Your task to perform on an android device: turn notification dots on Image 0: 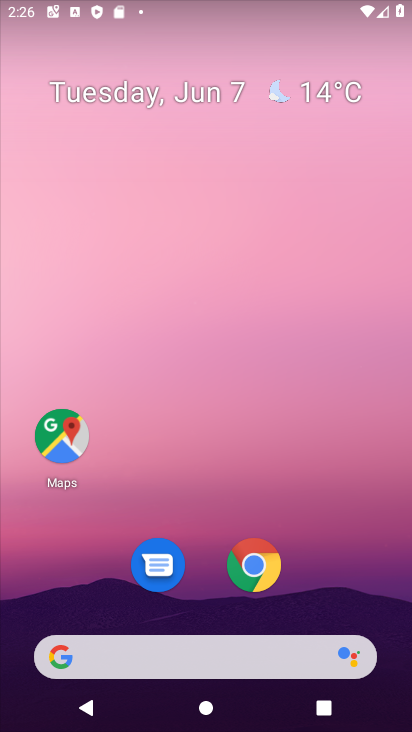
Step 0: drag from (319, 660) to (348, 0)
Your task to perform on an android device: turn notification dots on Image 1: 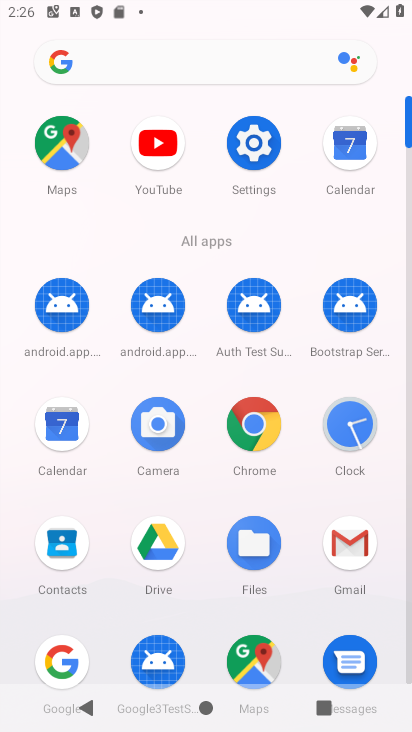
Step 1: click (256, 123)
Your task to perform on an android device: turn notification dots on Image 2: 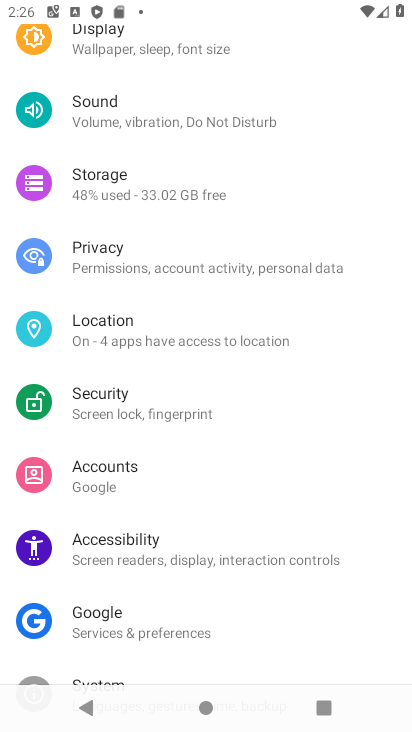
Step 2: drag from (250, 209) to (282, 684)
Your task to perform on an android device: turn notification dots on Image 3: 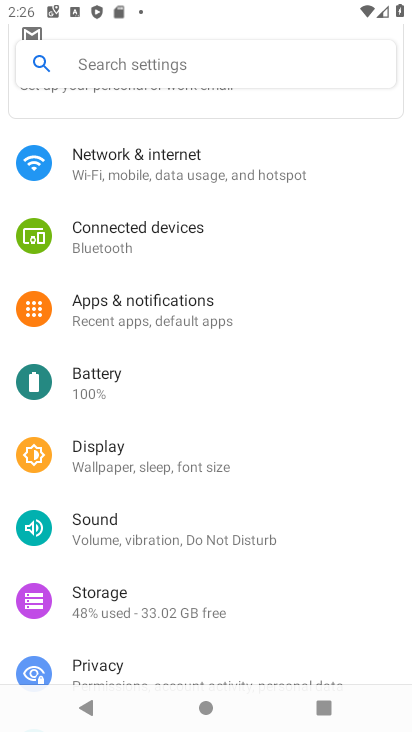
Step 3: click (196, 316)
Your task to perform on an android device: turn notification dots on Image 4: 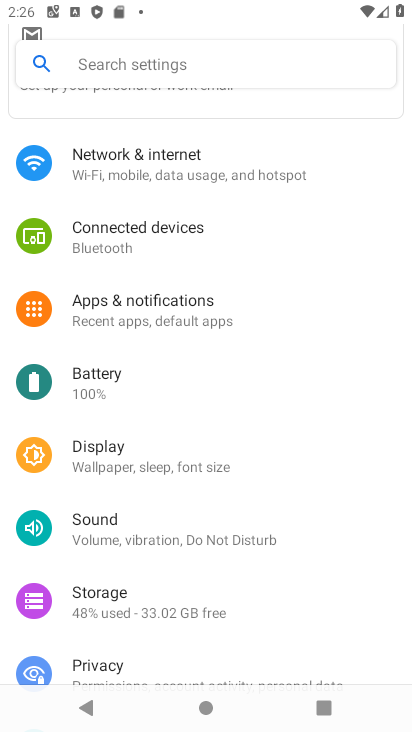
Step 4: click (181, 318)
Your task to perform on an android device: turn notification dots on Image 5: 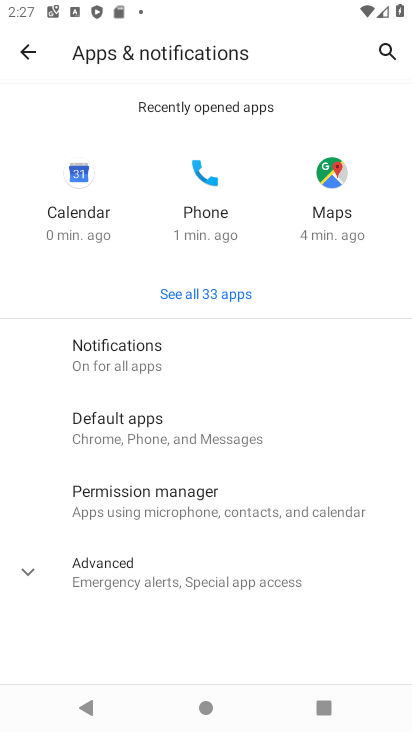
Step 5: click (179, 368)
Your task to perform on an android device: turn notification dots on Image 6: 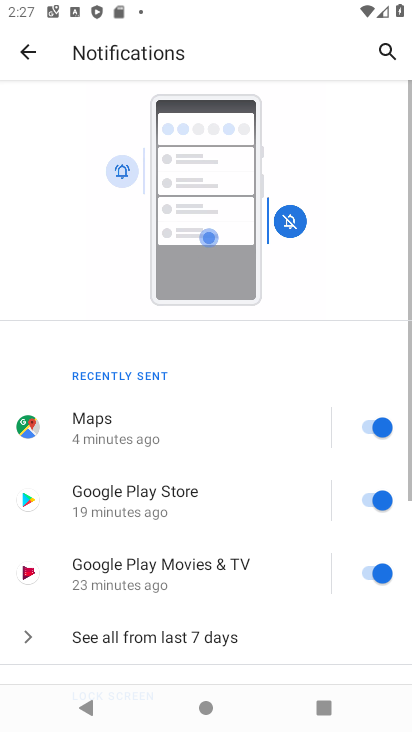
Step 6: drag from (225, 647) to (273, 66)
Your task to perform on an android device: turn notification dots on Image 7: 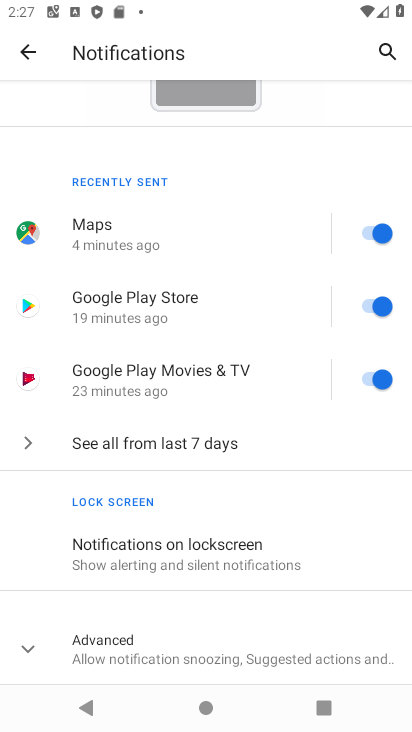
Step 7: click (182, 668)
Your task to perform on an android device: turn notification dots on Image 8: 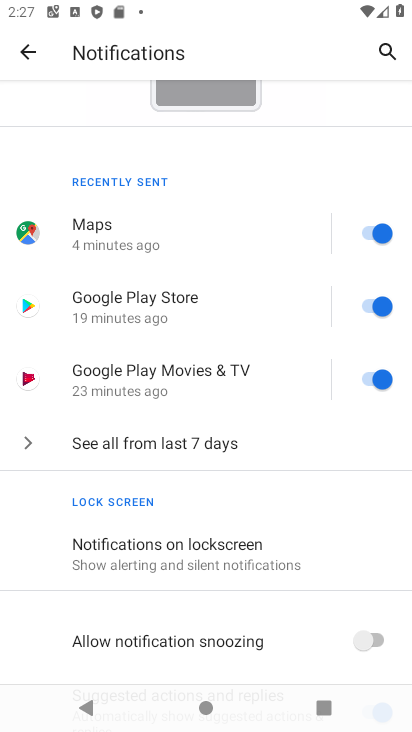
Step 8: click (233, 643)
Your task to perform on an android device: turn notification dots on Image 9: 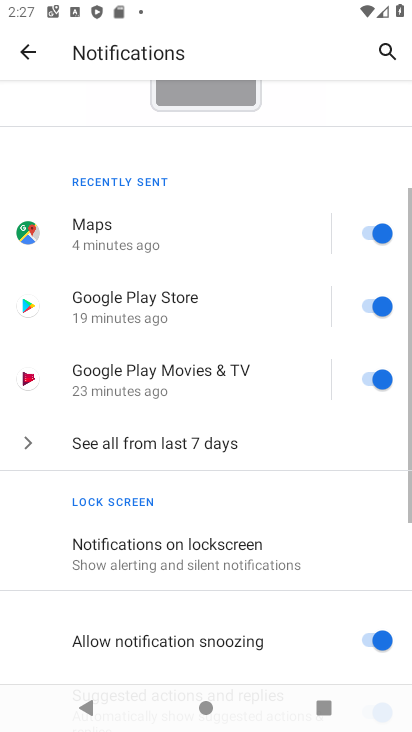
Step 9: click (233, 643)
Your task to perform on an android device: turn notification dots on Image 10: 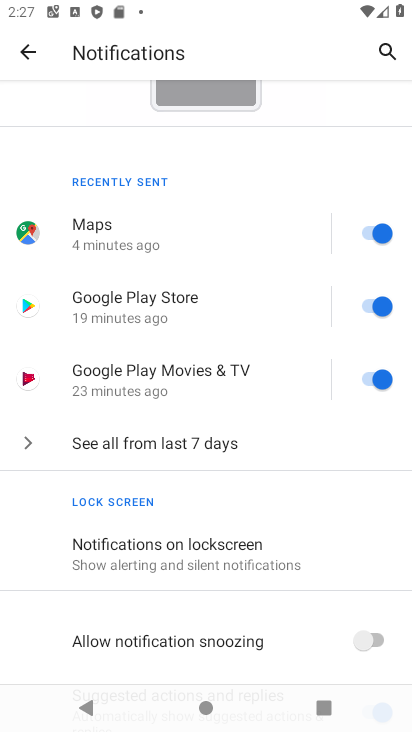
Step 10: click (237, 561)
Your task to perform on an android device: turn notification dots on Image 11: 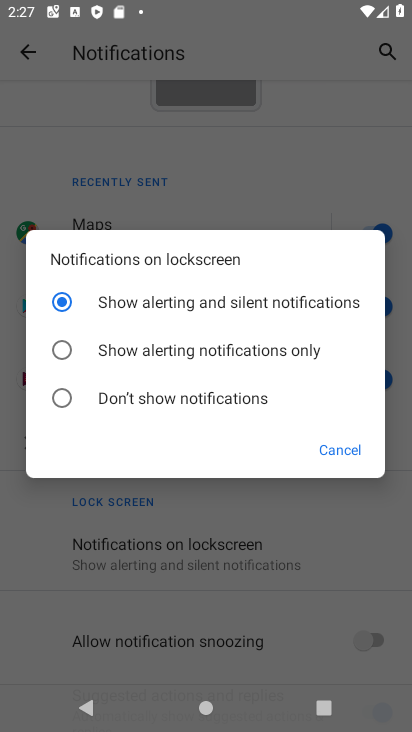
Step 11: click (341, 449)
Your task to perform on an android device: turn notification dots on Image 12: 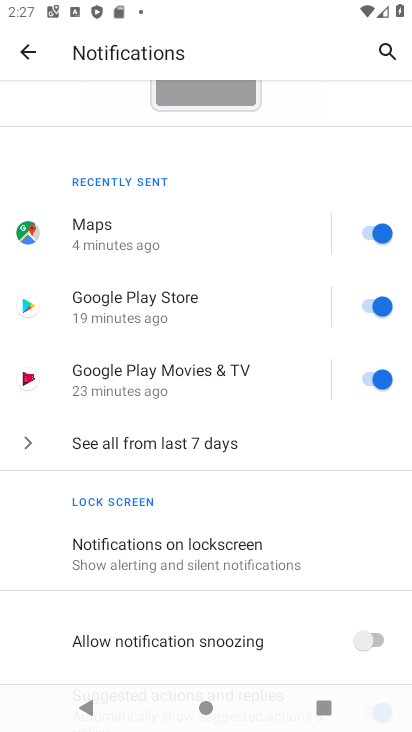
Step 12: task complete